Your task to perform on an android device: turn off airplane mode Image 0: 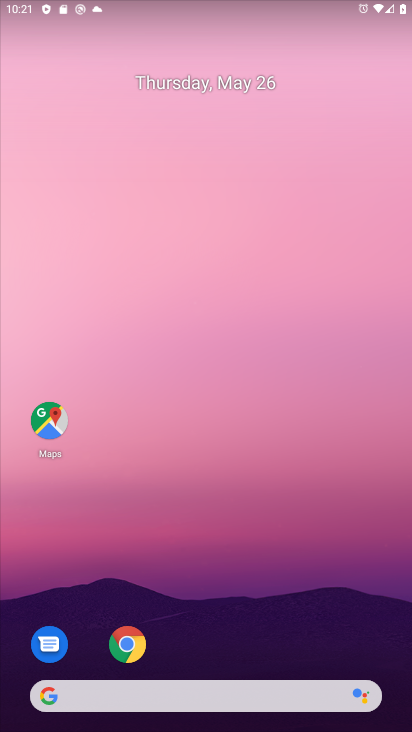
Step 0: drag from (202, 659) to (176, 290)
Your task to perform on an android device: turn off airplane mode Image 1: 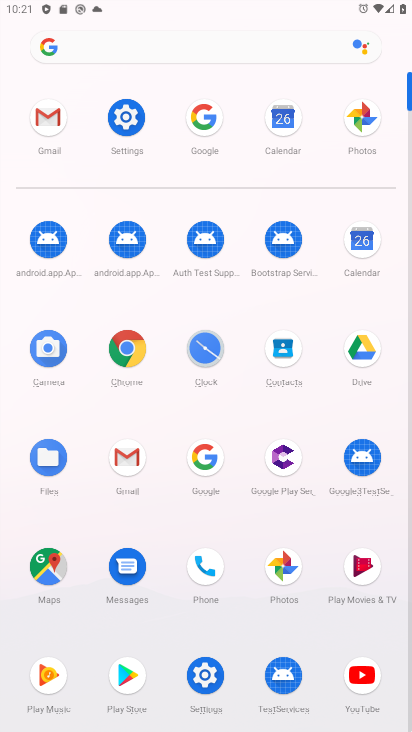
Step 1: click (134, 119)
Your task to perform on an android device: turn off airplane mode Image 2: 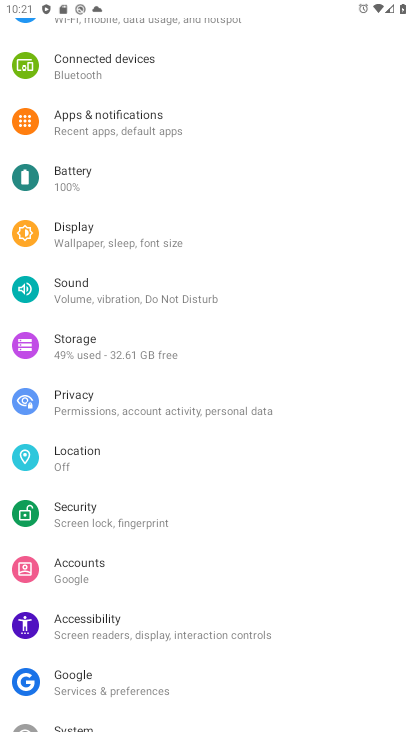
Step 2: drag from (134, 135) to (117, 570)
Your task to perform on an android device: turn off airplane mode Image 3: 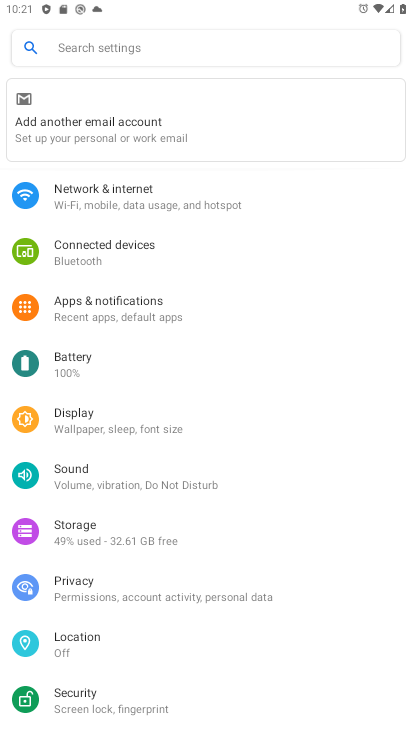
Step 3: click (122, 209)
Your task to perform on an android device: turn off airplane mode Image 4: 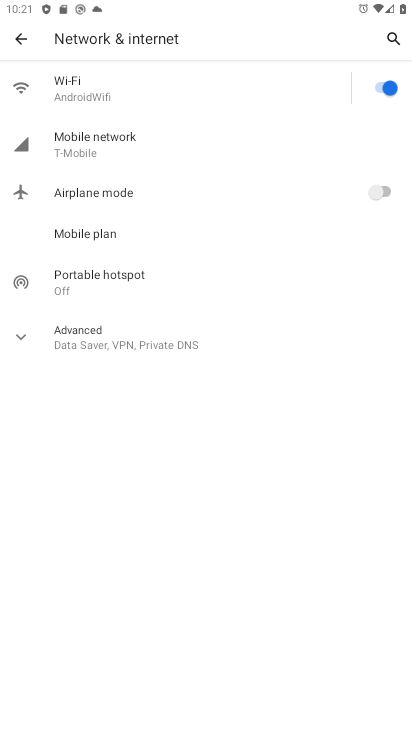
Step 4: task complete